Your task to perform on an android device: install app "Calculator" Image 0: 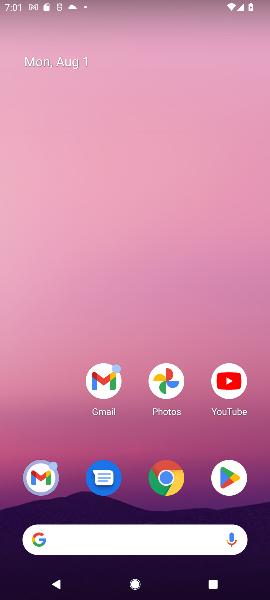
Step 0: press home button
Your task to perform on an android device: install app "Calculator" Image 1: 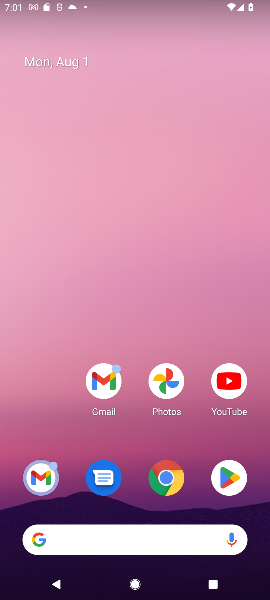
Step 1: click (229, 485)
Your task to perform on an android device: install app "Calculator" Image 2: 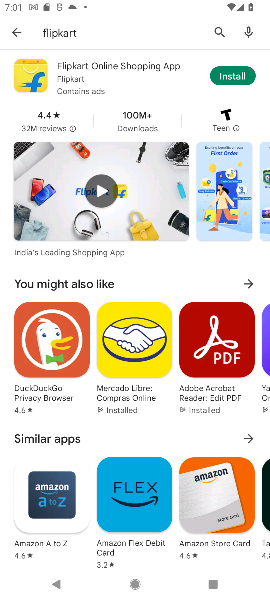
Step 2: click (215, 36)
Your task to perform on an android device: install app "Calculator" Image 3: 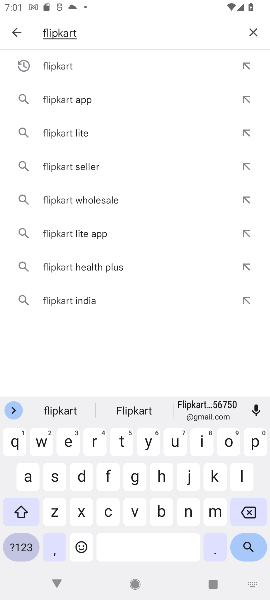
Step 3: click (249, 35)
Your task to perform on an android device: install app "Calculator" Image 4: 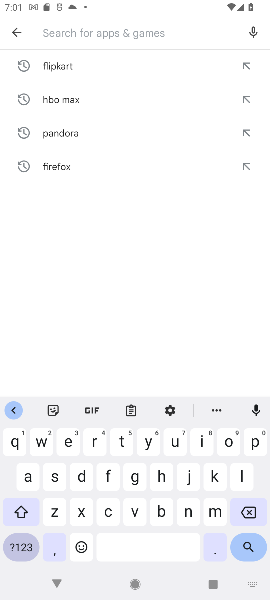
Step 4: click (110, 516)
Your task to perform on an android device: install app "Calculator" Image 5: 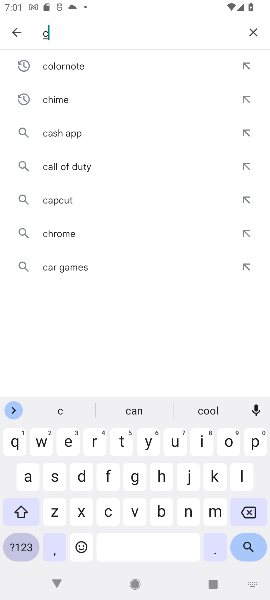
Step 5: click (25, 479)
Your task to perform on an android device: install app "Calculator" Image 6: 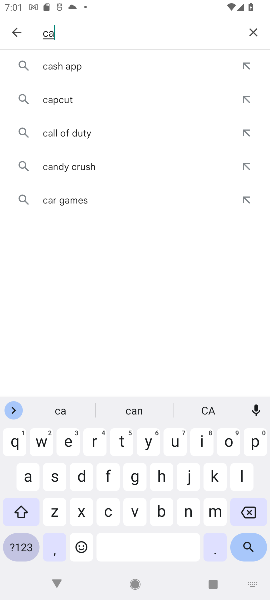
Step 6: click (242, 473)
Your task to perform on an android device: install app "Calculator" Image 7: 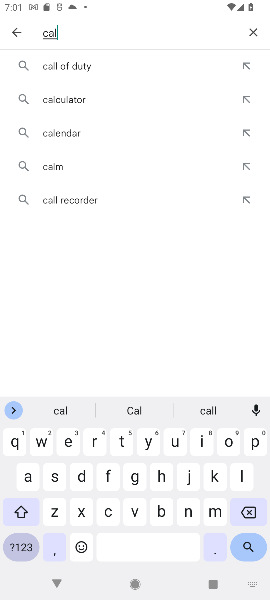
Step 7: click (65, 100)
Your task to perform on an android device: install app "Calculator" Image 8: 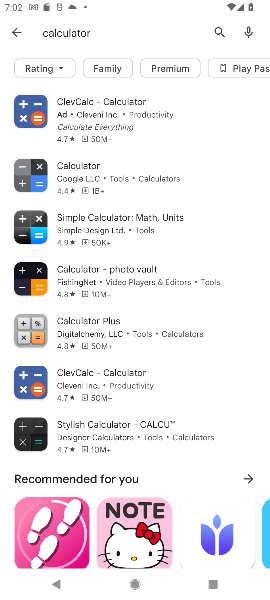
Step 8: click (113, 181)
Your task to perform on an android device: install app "Calculator" Image 9: 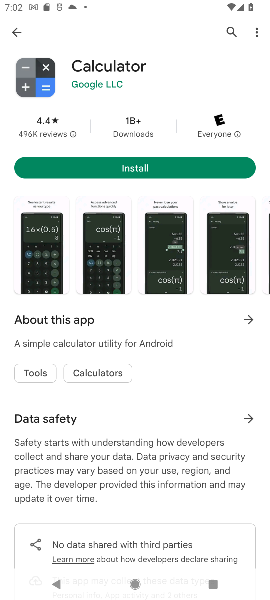
Step 9: click (140, 162)
Your task to perform on an android device: install app "Calculator" Image 10: 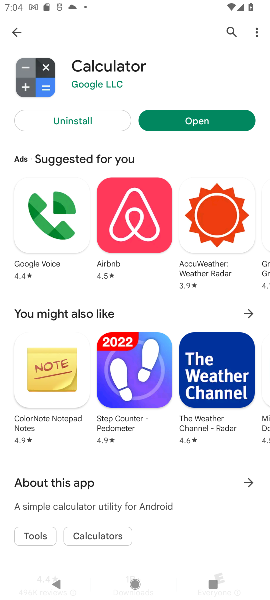
Step 10: task complete